Your task to perform on an android device: Empty the shopping cart on ebay.com. Add "sony triple a" to the cart on ebay.com Image 0: 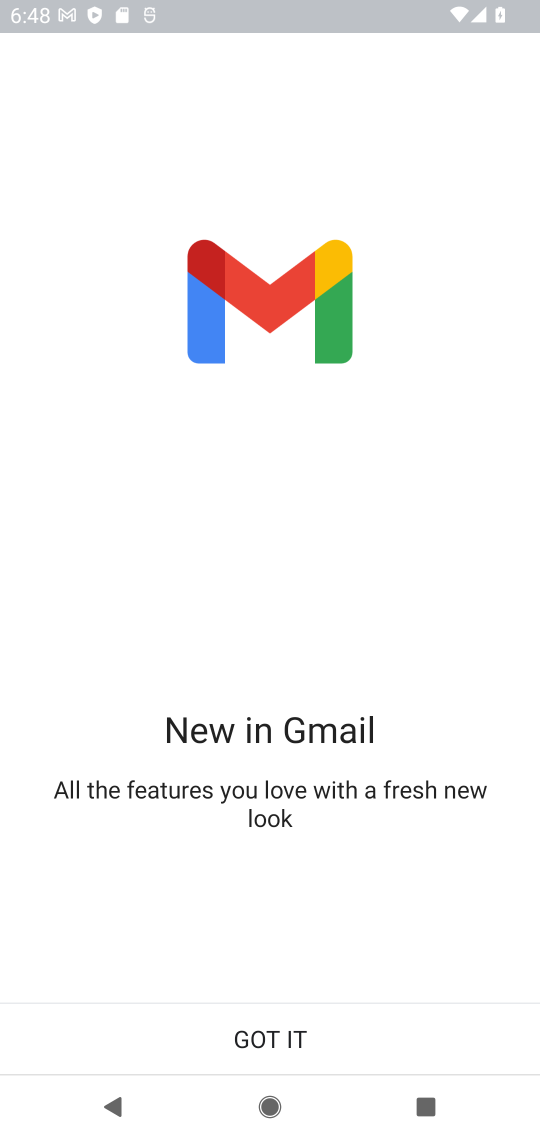
Step 0: press home button
Your task to perform on an android device: Empty the shopping cart on ebay.com. Add "sony triple a" to the cart on ebay.com Image 1: 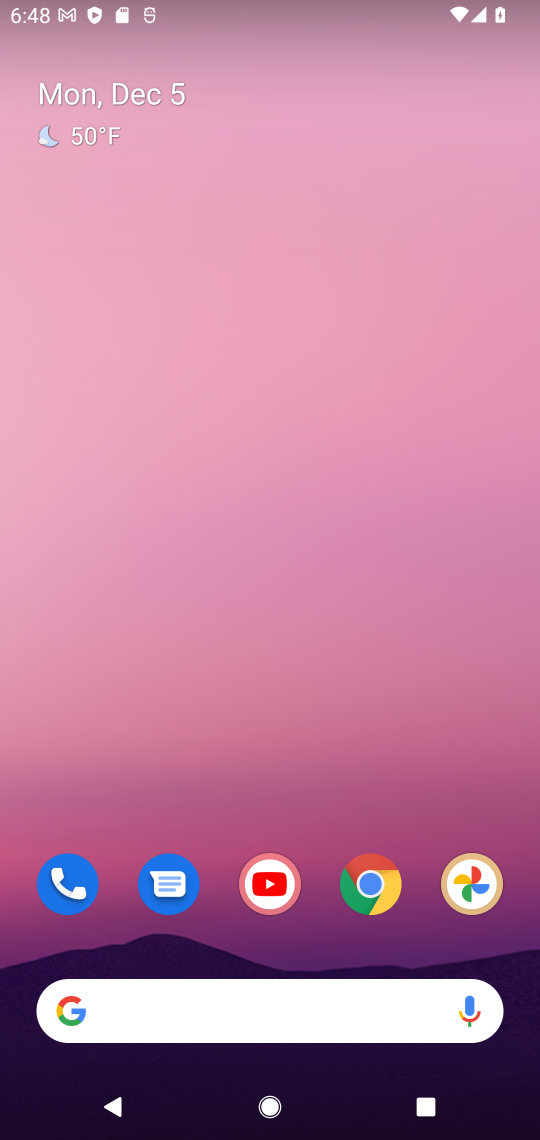
Step 1: click (369, 890)
Your task to perform on an android device: Empty the shopping cart on ebay.com. Add "sony triple a" to the cart on ebay.com Image 2: 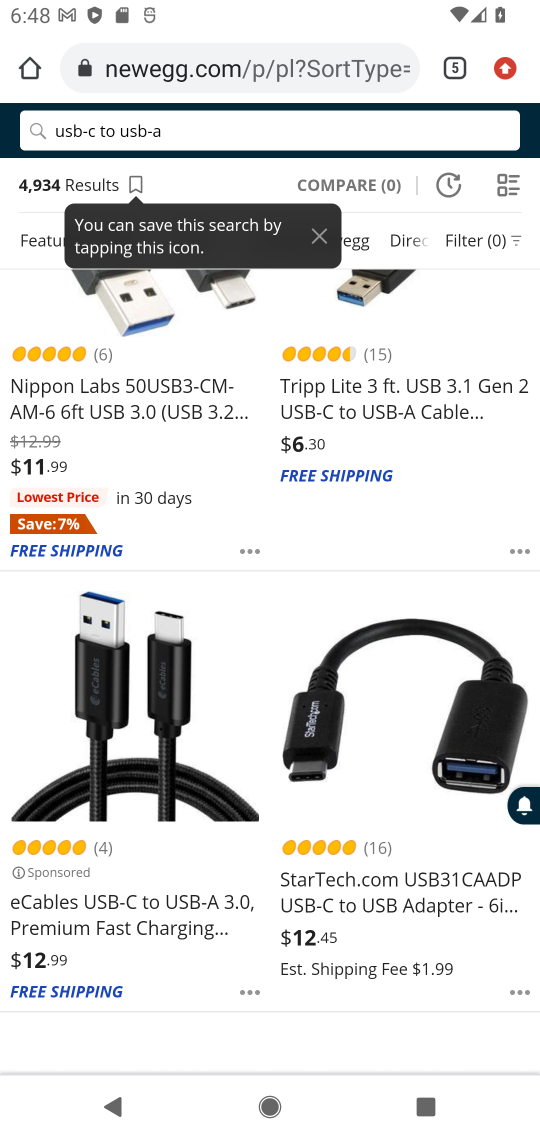
Step 2: click (447, 72)
Your task to perform on an android device: Empty the shopping cart on ebay.com. Add "sony triple a" to the cart on ebay.com Image 3: 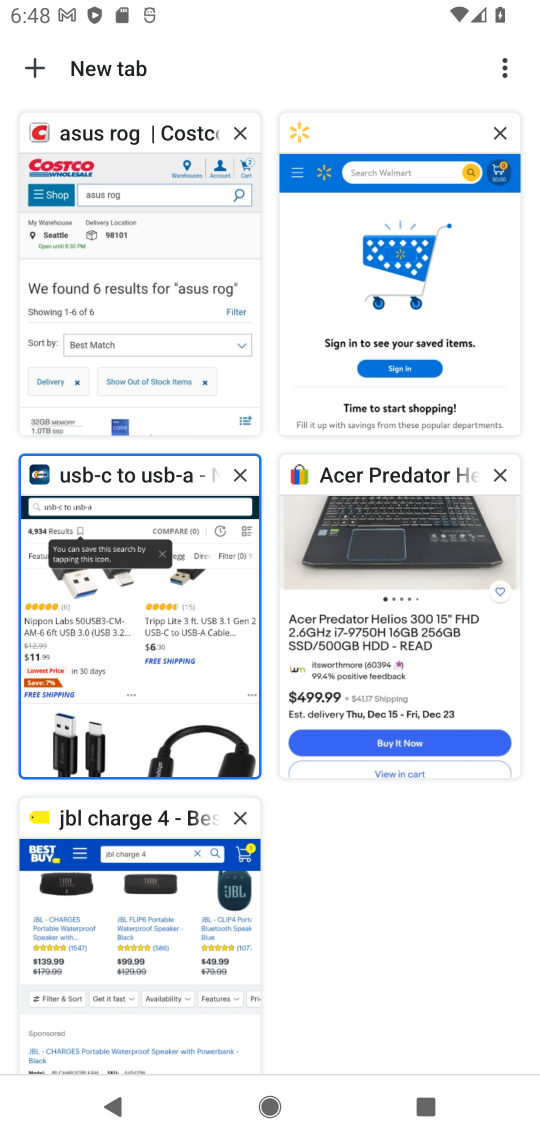
Step 3: click (364, 587)
Your task to perform on an android device: Empty the shopping cart on ebay.com. Add "sony triple a" to the cart on ebay.com Image 4: 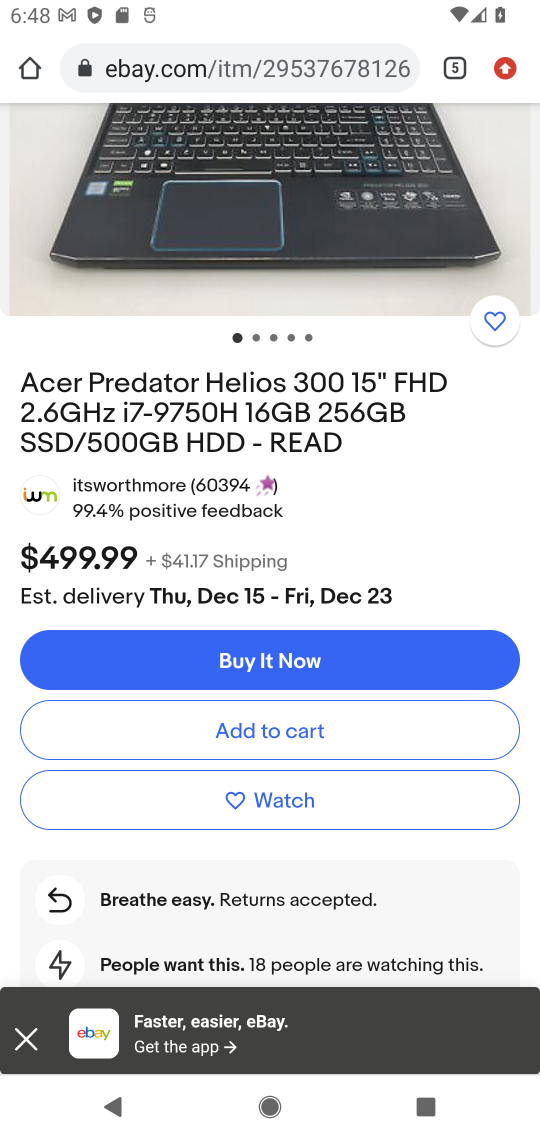
Step 4: drag from (358, 174) to (301, 818)
Your task to perform on an android device: Empty the shopping cart on ebay.com. Add "sony triple a" to the cart on ebay.com Image 5: 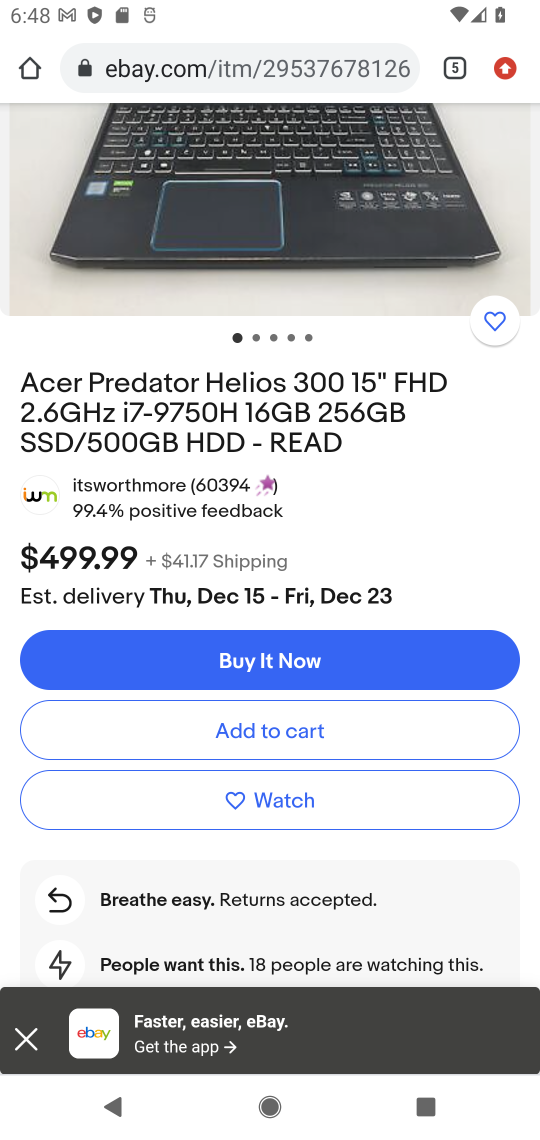
Step 5: drag from (301, 160) to (205, 921)
Your task to perform on an android device: Empty the shopping cart on ebay.com. Add "sony triple a" to the cart on ebay.com Image 6: 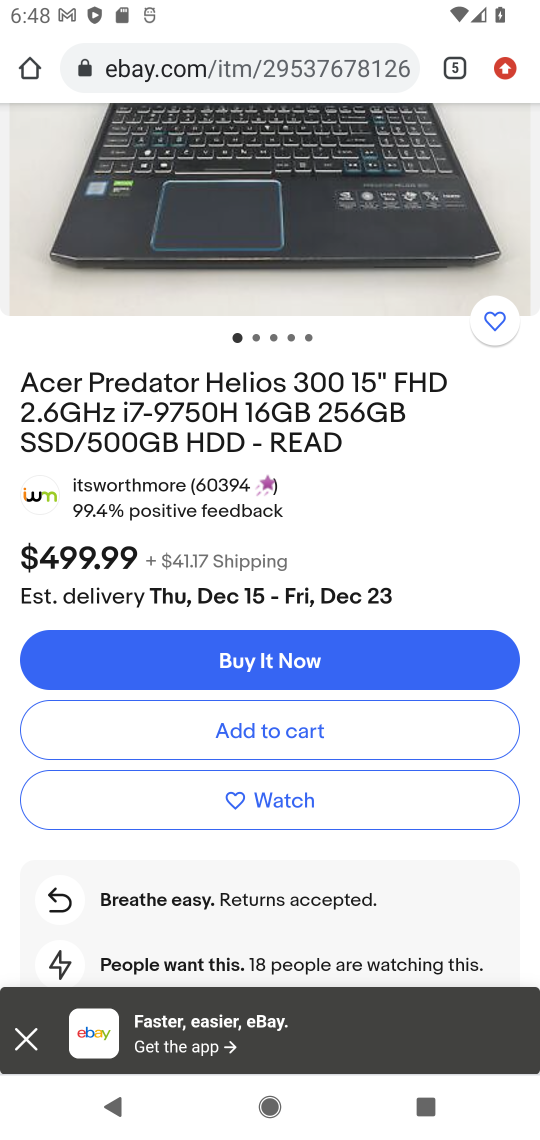
Step 6: drag from (272, 151) to (245, 538)
Your task to perform on an android device: Empty the shopping cart on ebay.com. Add "sony triple a" to the cart on ebay.com Image 7: 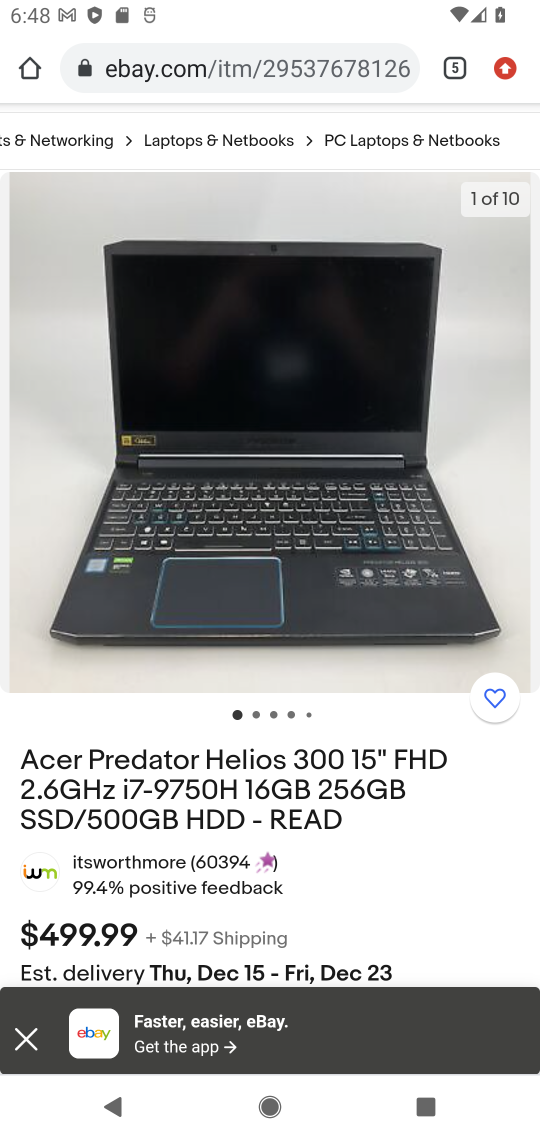
Step 7: drag from (322, 141) to (324, 690)
Your task to perform on an android device: Empty the shopping cart on ebay.com. Add "sony triple a" to the cart on ebay.com Image 8: 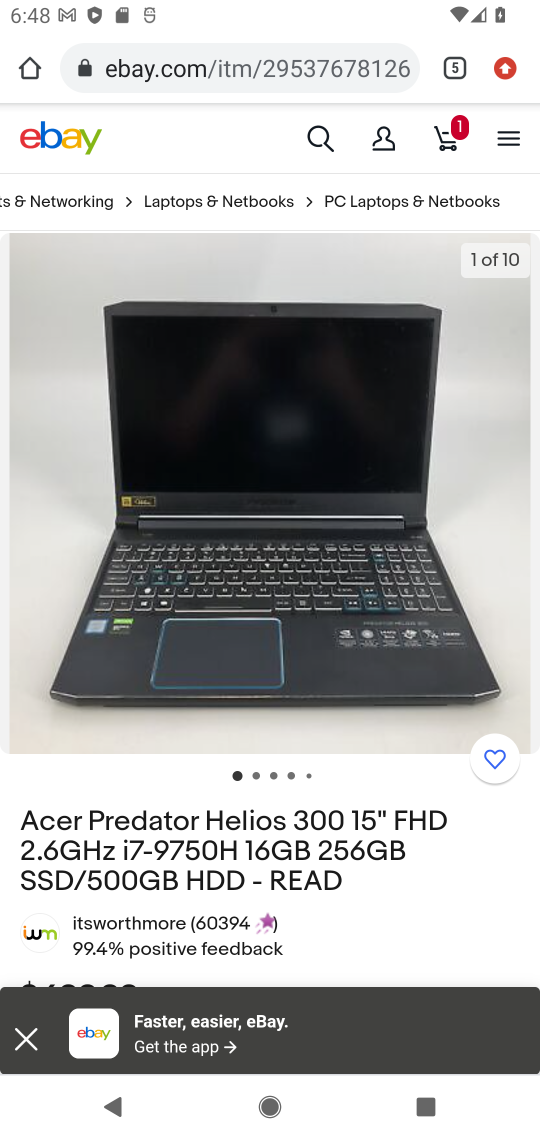
Step 8: click (325, 144)
Your task to perform on an android device: Empty the shopping cart on ebay.com. Add "sony triple a" to the cart on ebay.com Image 9: 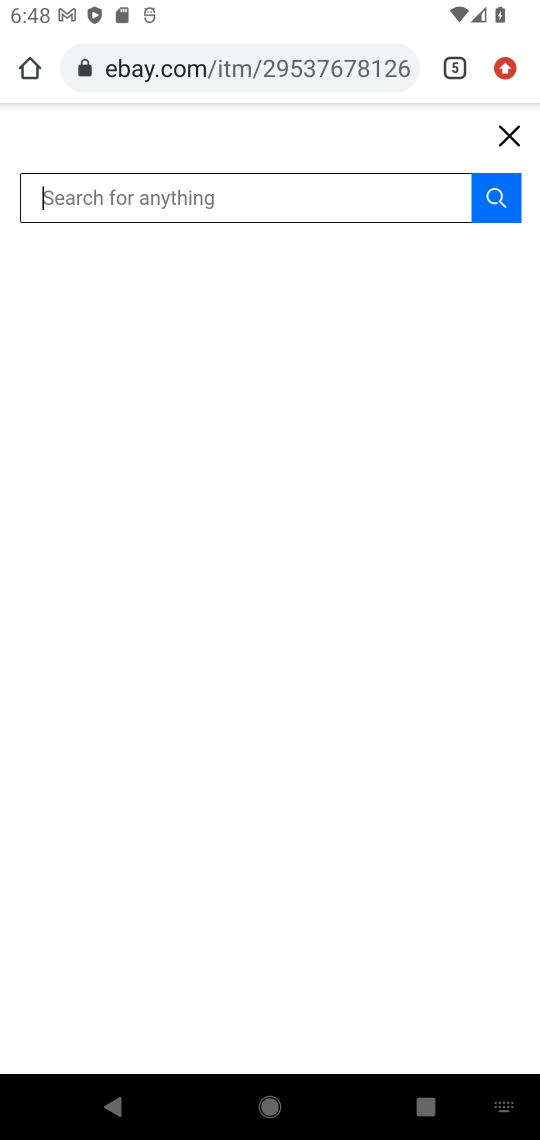
Step 9: type "sony triple a"
Your task to perform on an android device: Empty the shopping cart on ebay.com. Add "sony triple a" to the cart on ebay.com Image 10: 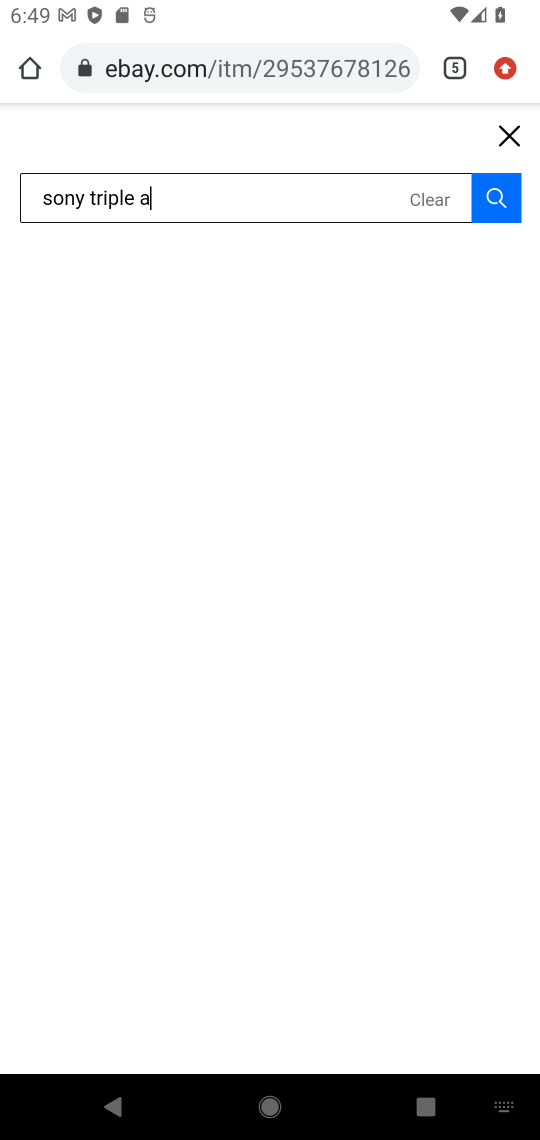
Step 10: click (492, 200)
Your task to perform on an android device: Empty the shopping cart on ebay.com. Add "sony triple a" to the cart on ebay.com Image 11: 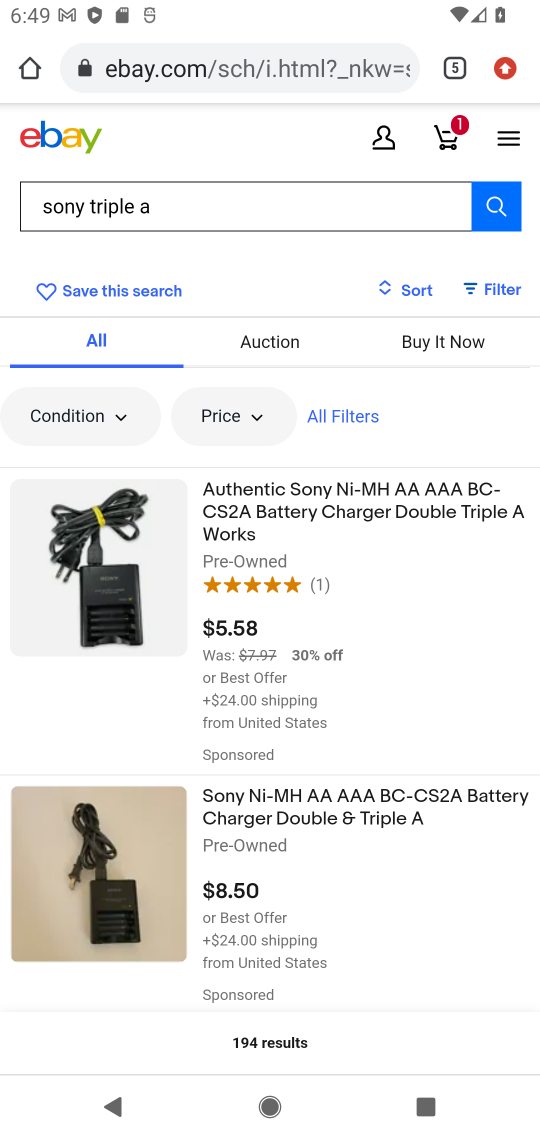
Step 11: click (419, 219)
Your task to perform on an android device: Empty the shopping cart on ebay.com. Add "sony triple a" to the cart on ebay.com Image 12: 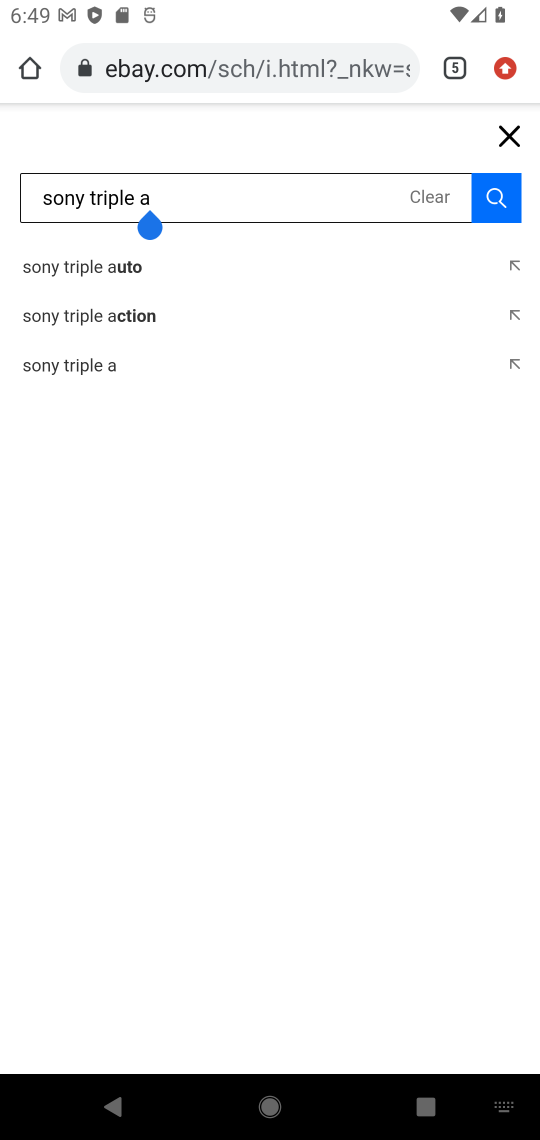
Step 12: type " battery"
Your task to perform on an android device: Empty the shopping cart on ebay.com. Add "sony triple a" to the cart on ebay.com Image 13: 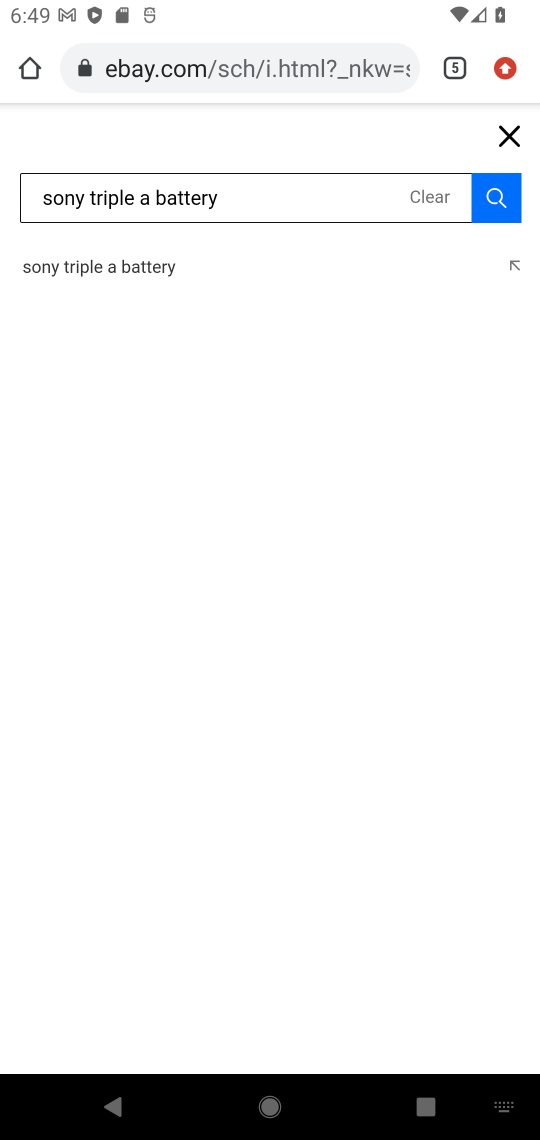
Step 13: click (500, 193)
Your task to perform on an android device: Empty the shopping cart on ebay.com. Add "sony triple a" to the cart on ebay.com Image 14: 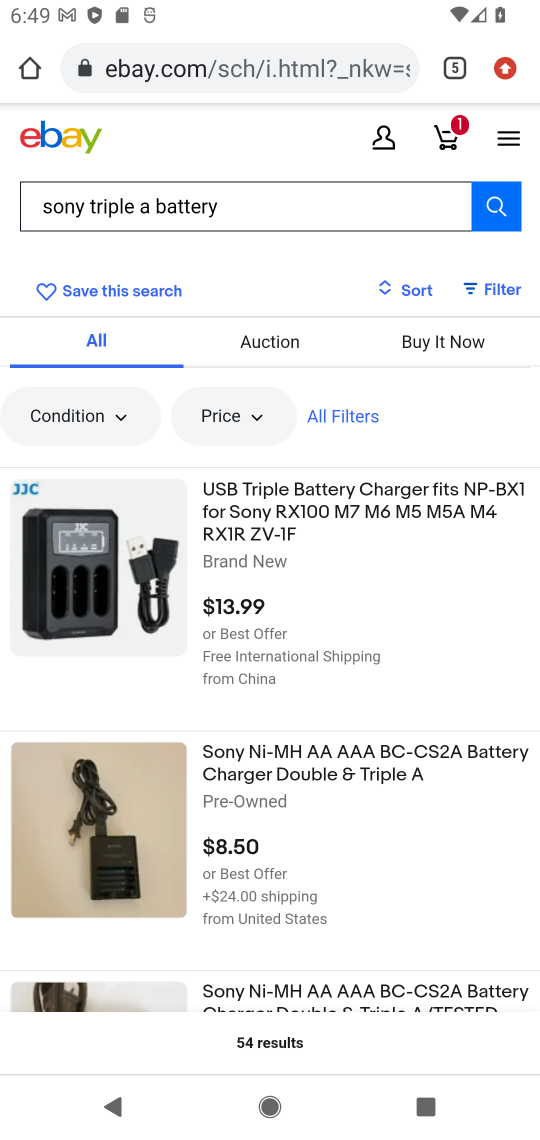
Step 14: click (495, 207)
Your task to perform on an android device: Empty the shopping cart on ebay.com. Add "sony triple a" to the cart on ebay.com Image 15: 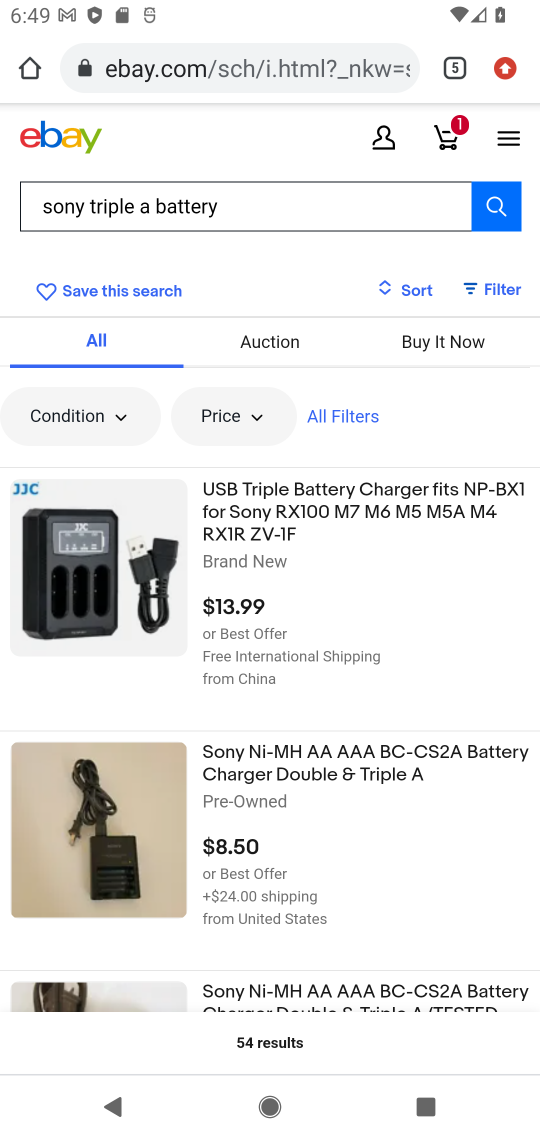
Step 15: task complete